Your task to perform on an android device: Go to calendar. Show me events next week Image 0: 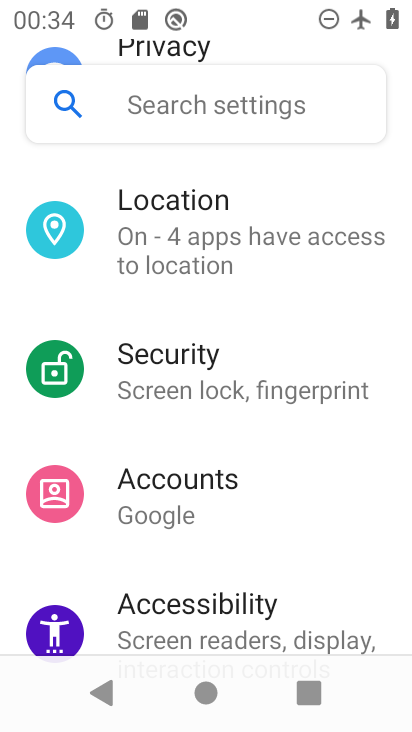
Step 0: press home button
Your task to perform on an android device: Go to calendar. Show me events next week Image 1: 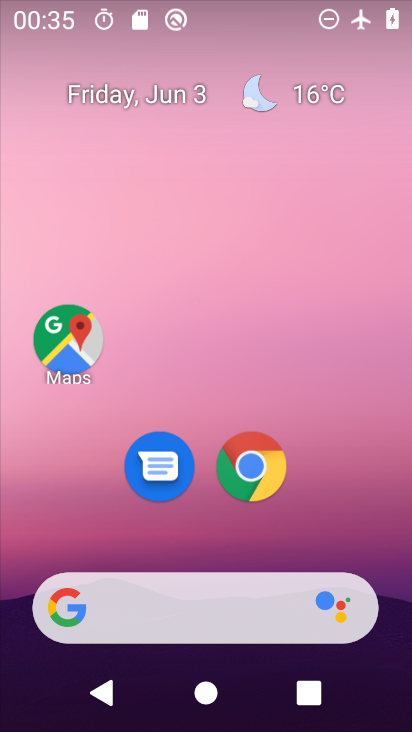
Step 1: drag from (205, 545) to (223, 174)
Your task to perform on an android device: Go to calendar. Show me events next week Image 2: 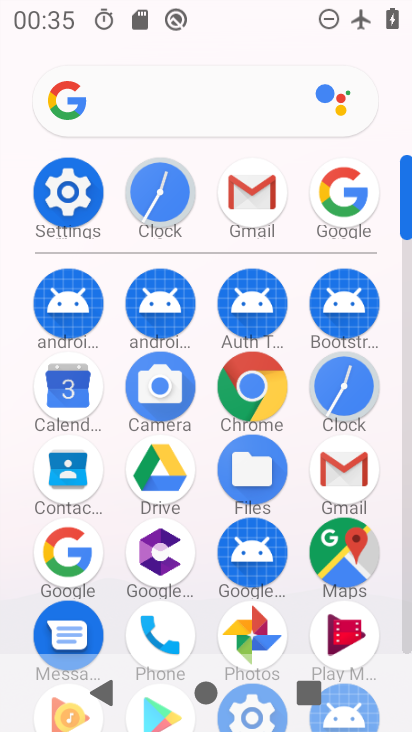
Step 2: click (79, 393)
Your task to perform on an android device: Go to calendar. Show me events next week Image 3: 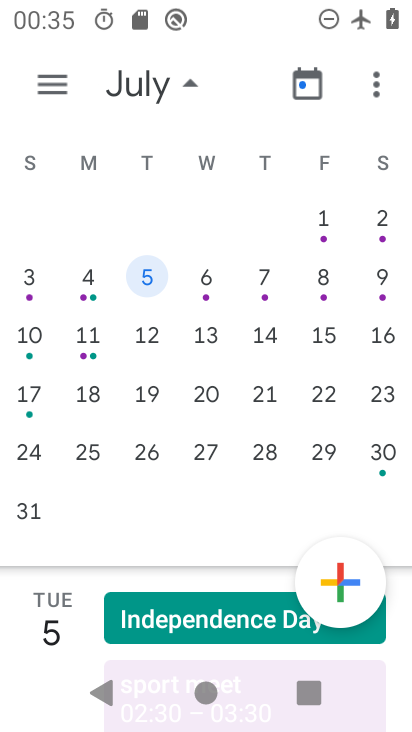
Step 3: drag from (29, 270) to (377, 278)
Your task to perform on an android device: Go to calendar. Show me events next week Image 4: 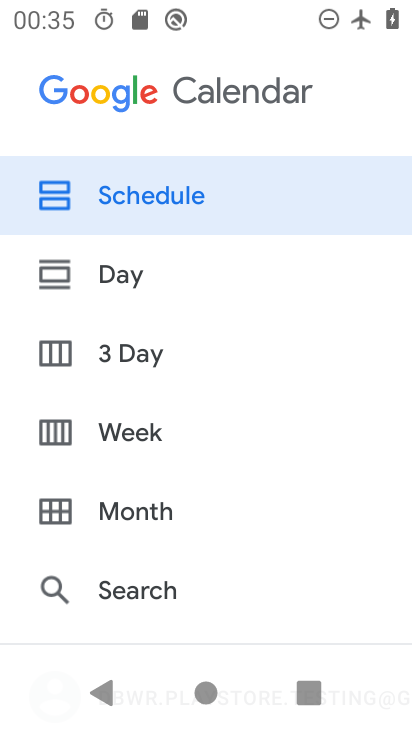
Step 4: click (174, 206)
Your task to perform on an android device: Go to calendar. Show me events next week Image 5: 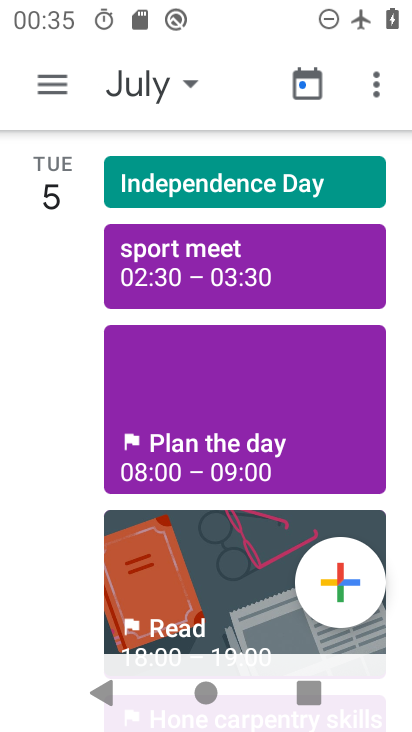
Step 5: click (165, 84)
Your task to perform on an android device: Go to calendar. Show me events next week Image 6: 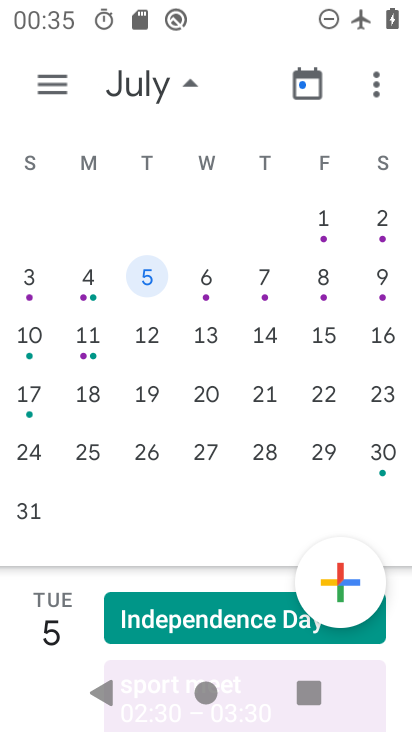
Step 6: drag from (39, 324) to (380, 315)
Your task to perform on an android device: Go to calendar. Show me events next week Image 7: 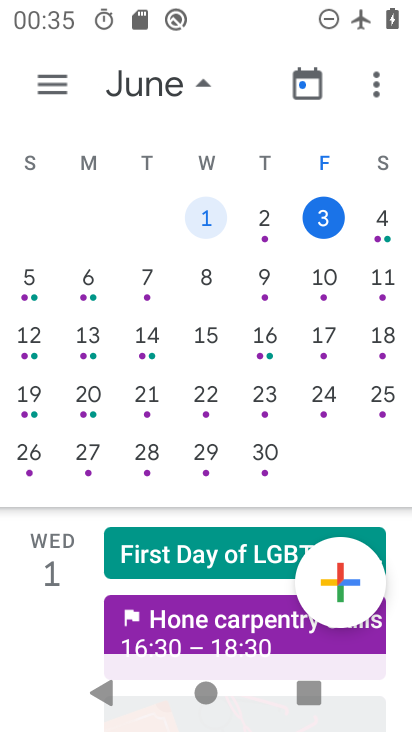
Step 7: click (78, 279)
Your task to perform on an android device: Go to calendar. Show me events next week Image 8: 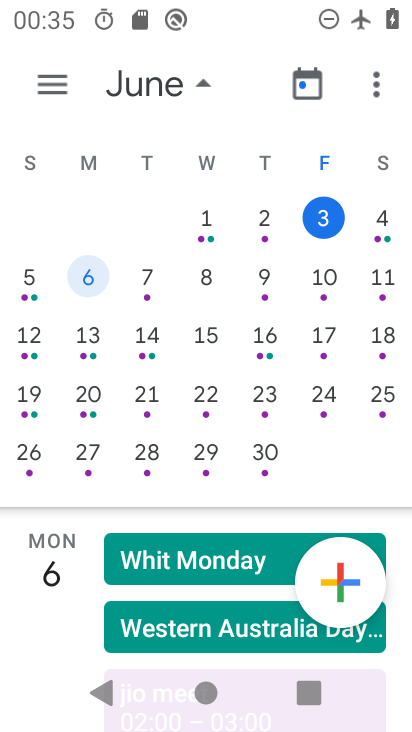
Step 8: task complete